Your task to perform on an android device: Go to calendar. Show me events next week Image 0: 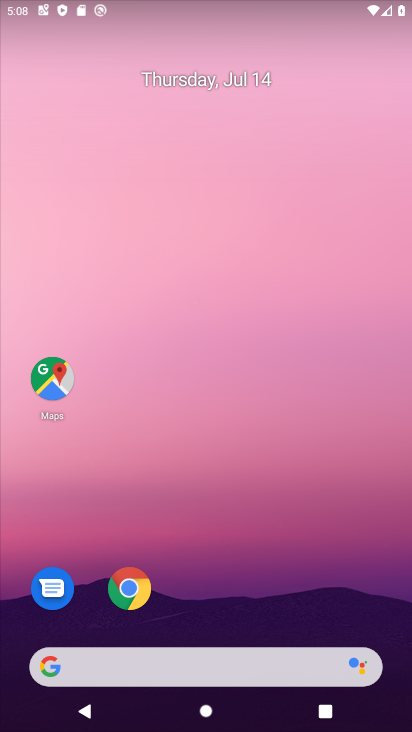
Step 0: drag from (167, 607) to (181, 205)
Your task to perform on an android device: Go to calendar. Show me events next week Image 1: 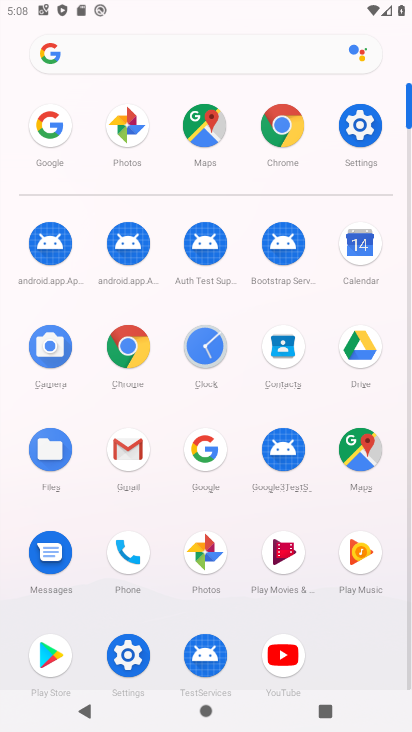
Step 1: click (362, 242)
Your task to perform on an android device: Go to calendar. Show me events next week Image 2: 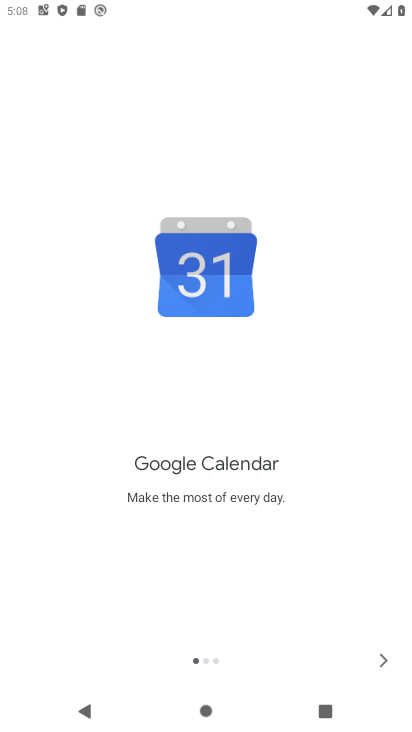
Step 2: click (388, 664)
Your task to perform on an android device: Go to calendar. Show me events next week Image 3: 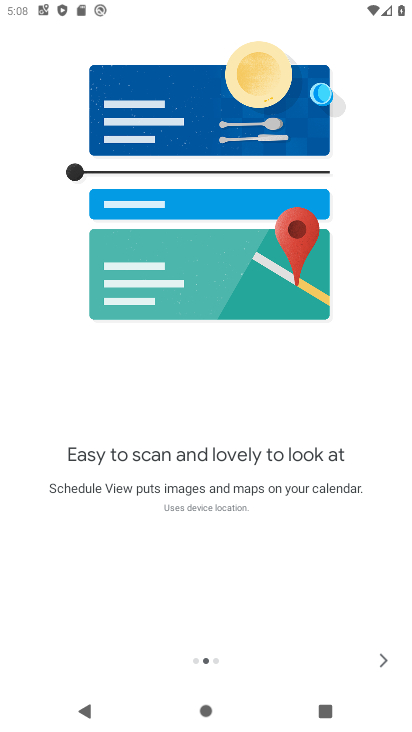
Step 3: click (388, 664)
Your task to perform on an android device: Go to calendar. Show me events next week Image 4: 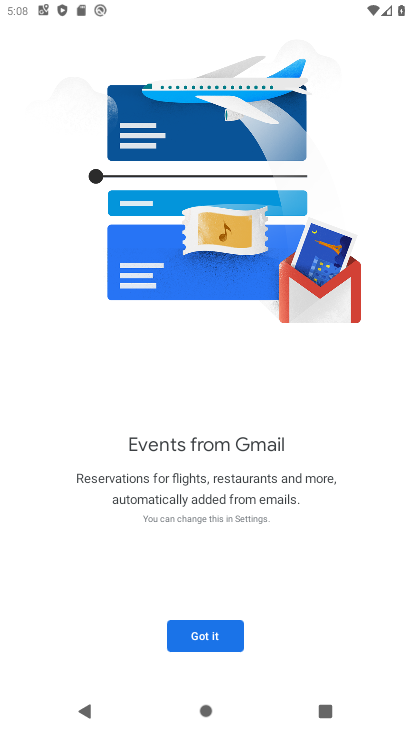
Step 4: click (189, 630)
Your task to perform on an android device: Go to calendar. Show me events next week Image 5: 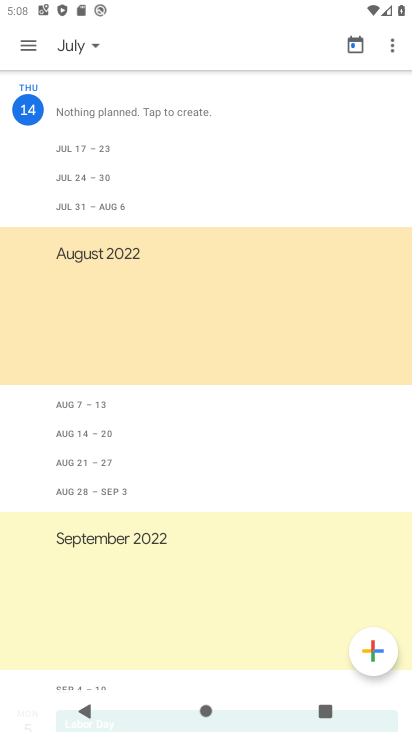
Step 5: click (85, 49)
Your task to perform on an android device: Go to calendar. Show me events next week Image 6: 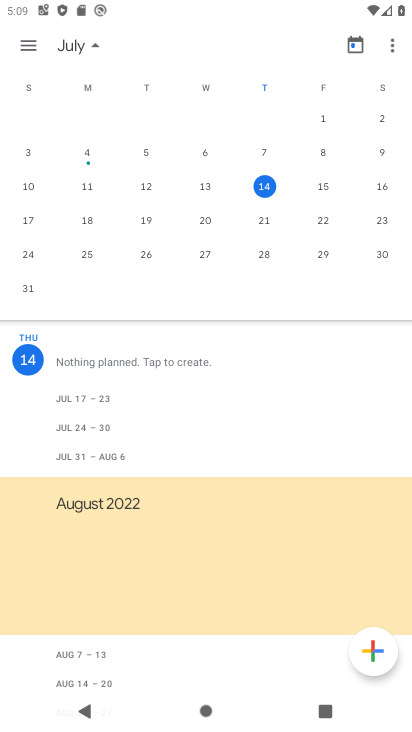
Step 6: click (137, 225)
Your task to perform on an android device: Go to calendar. Show me events next week Image 7: 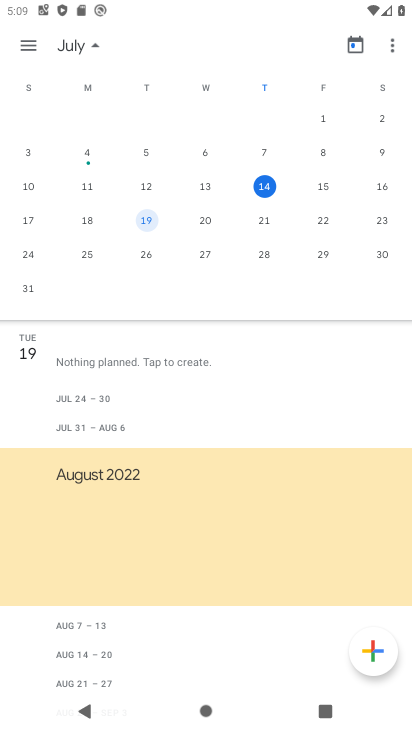
Step 7: task complete